Your task to perform on an android device: Turn on the flashlight Image 0: 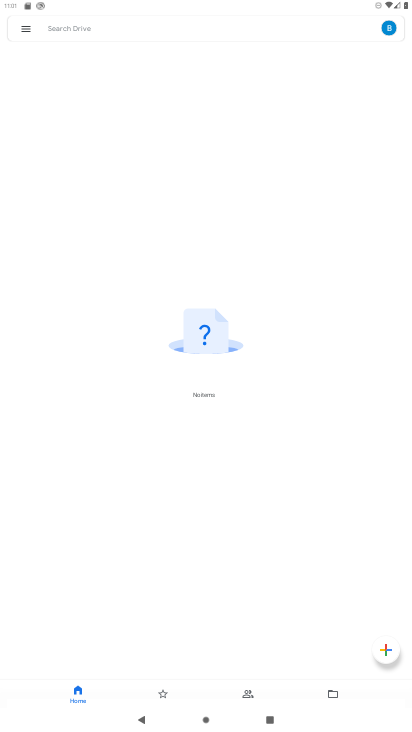
Step 0: press home button
Your task to perform on an android device: Turn on the flashlight Image 1: 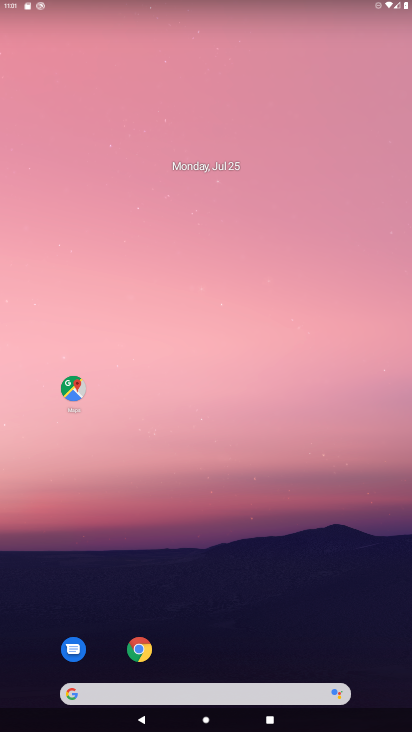
Step 1: drag from (213, 9) to (229, 418)
Your task to perform on an android device: Turn on the flashlight Image 2: 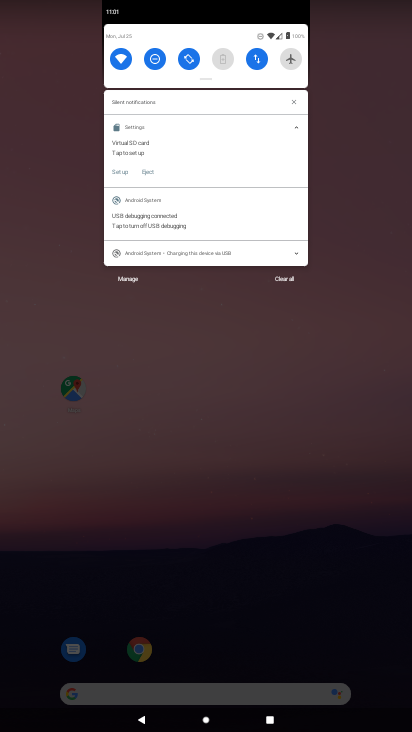
Step 2: drag from (203, 79) to (198, 363)
Your task to perform on an android device: Turn on the flashlight Image 3: 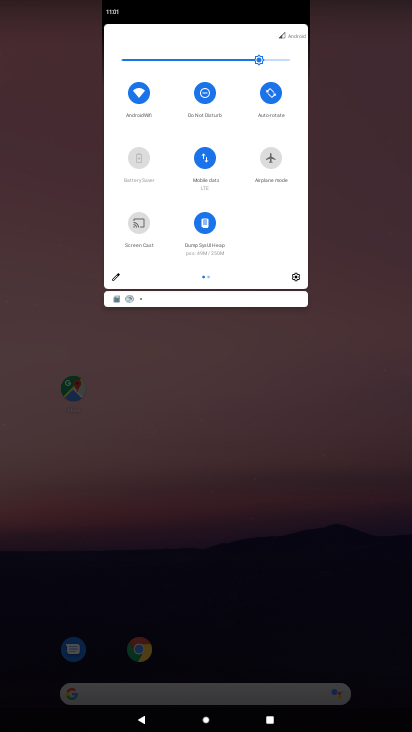
Step 3: click (111, 277)
Your task to perform on an android device: Turn on the flashlight Image 4: 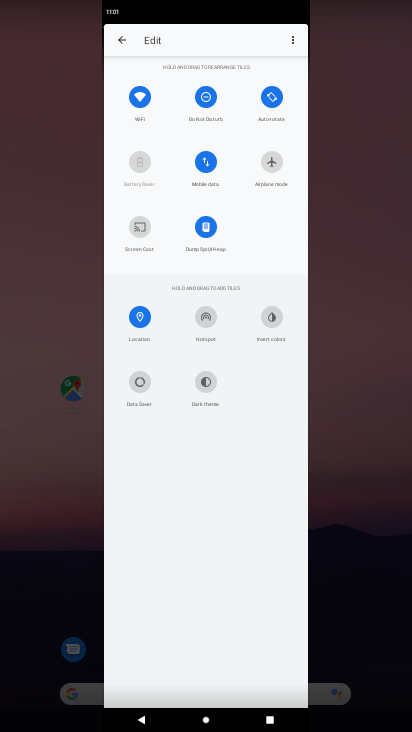
Step 4: task complete